Your task to perform on an android device: Open settings Image 0: 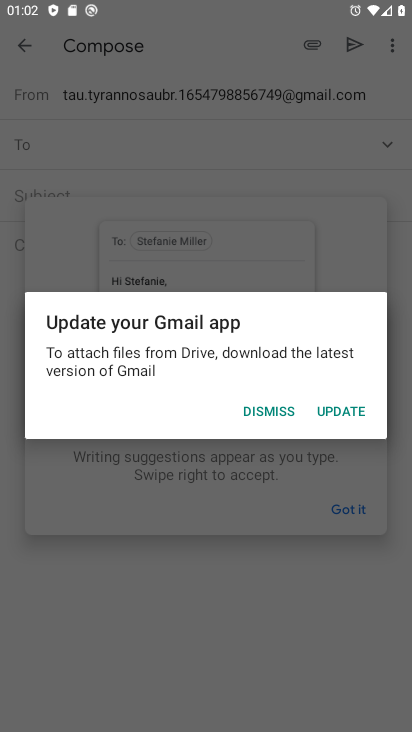
Step 0: press home button
Your task to perform on an android device: Open settings Image 1: 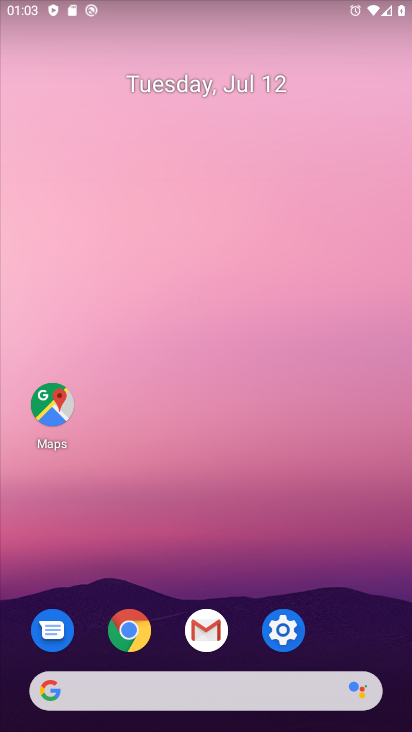
Step 1: click (277, 609)
Your task to perform on an android device: Open settings Image 2: 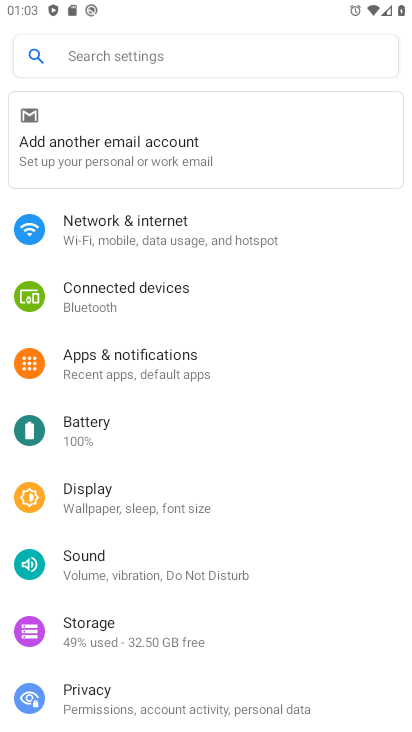
Step 2: task complete